Your task to perform on an android device: turn on improve location accuracy Image 0: 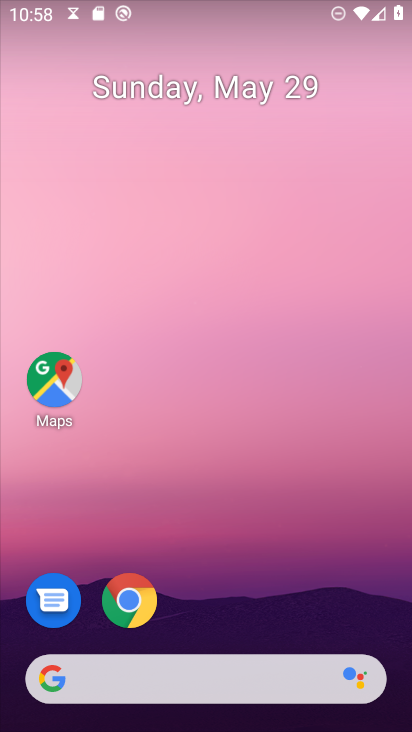
Step 0: drag from (237, 728) to (233, 181)
Your task to perform on an android device: turn on improve location accuracy Image 1: 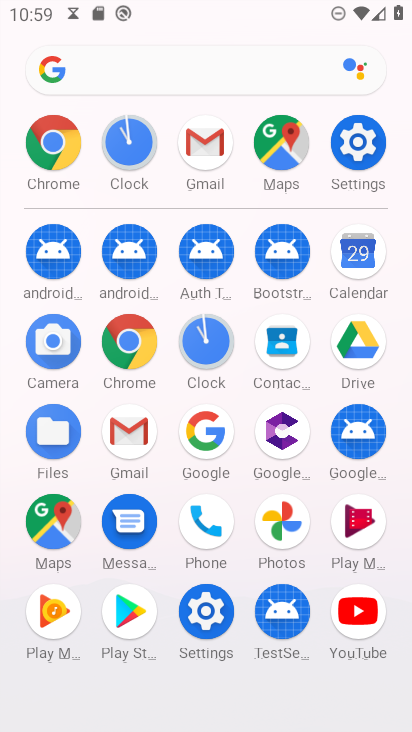
Step 1: click (363, 219)
Your task to perform on an android device: turn on improve location accuracy Image 2: 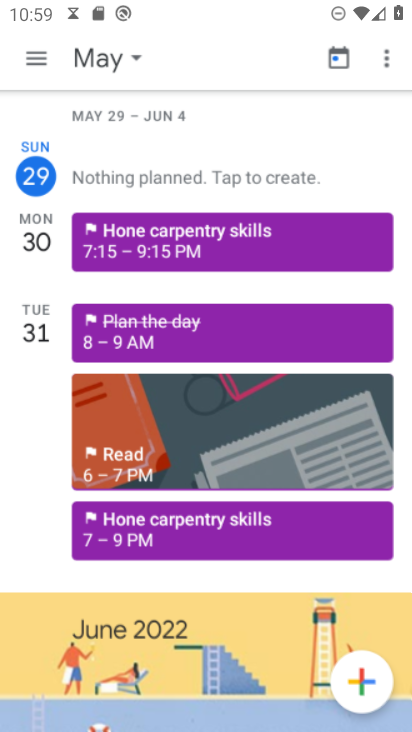
Step 2: click (358, 140)
Your task to perform on an android device: turn on improve location accuracy Image 3: 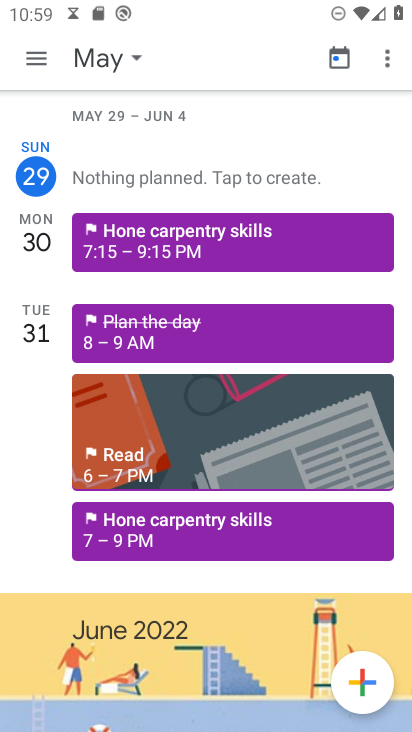
Step 3: press back button
Your task to perform on an android device: turn on improve location accuracy Image 4: 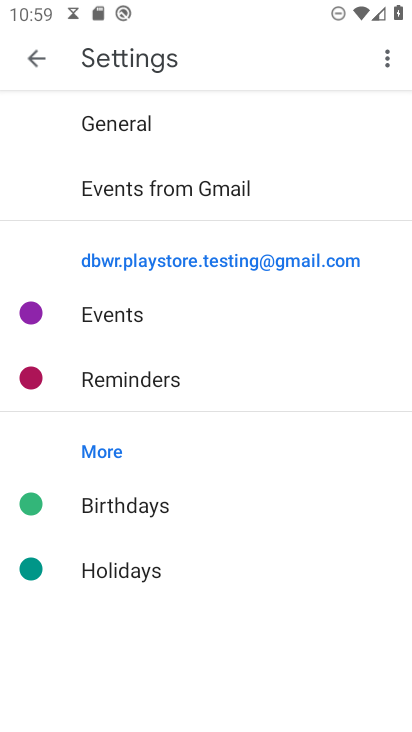
Step 4: press home button
Your task to perform on an android device: turn on improve location accuracy Image 5: 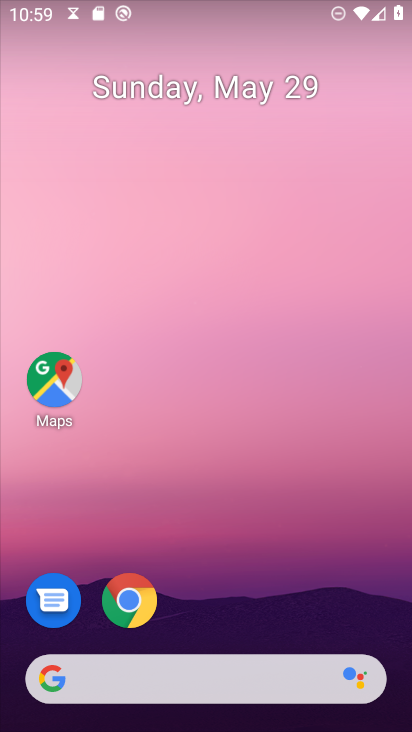
Step 5: drag from (204, 724) to (203, 277)
Your task to perform on an android device: turn on improve location accuracy Image 6: 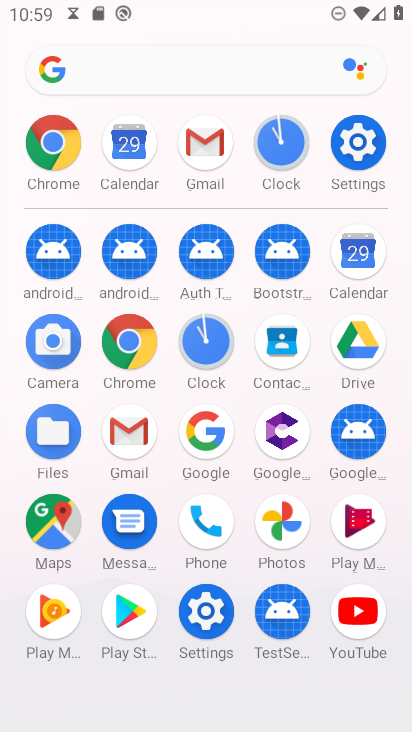
Step 6: click (361, 146)
Your task to perform on an android device: turn on improve location accuracy Image 7: 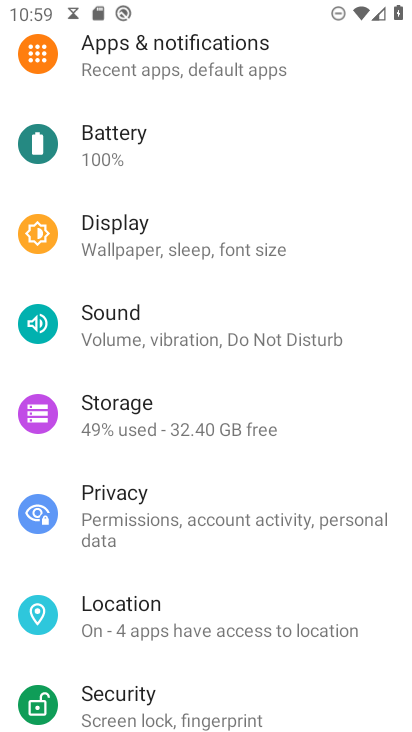
Step 7: click (102, 621)
Your task to perform on an android device: turn on improve location accuracy Image 8: 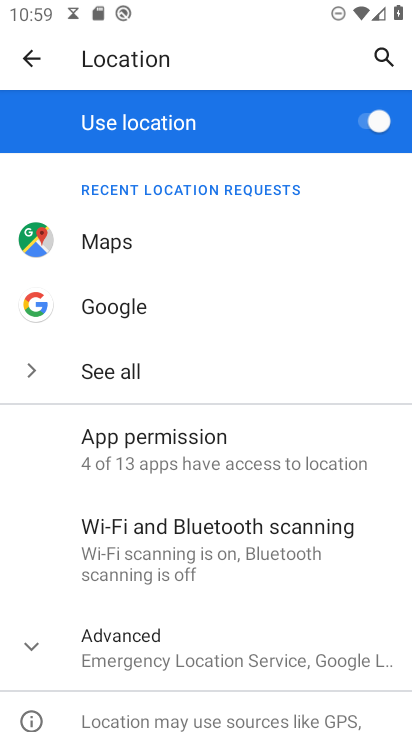
Step 8: click (134, 651)
Your task to perform on an android device: turn on improve location accuracy Image 9: 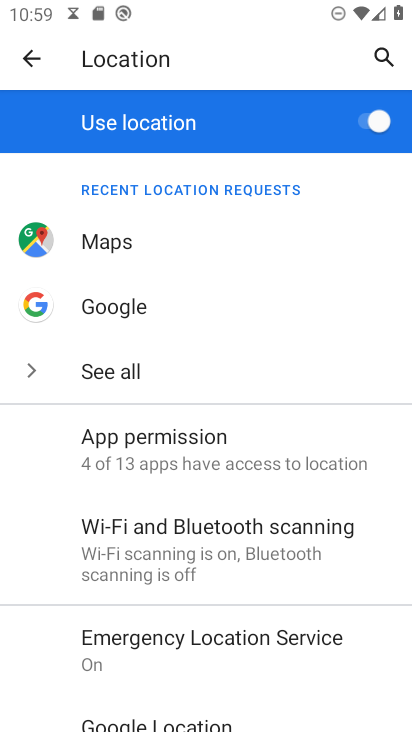
Step 9: drag from (186, 697) to (184, 540)
Your task to perform on an android device: turn on improve location accuracy Image 10: 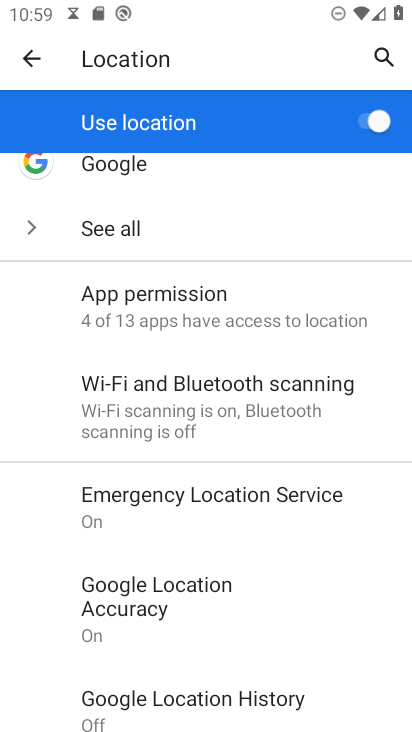
Step 10: drag from (200, 718) to (197, 346)
Your task to perform on an android device: turn on improve location accuracy Image 11: 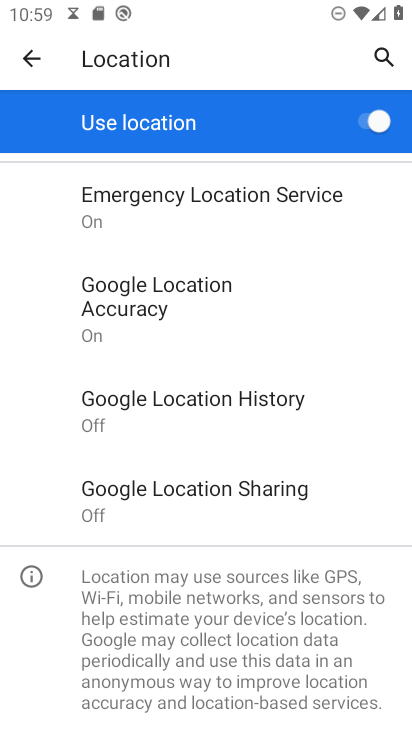
Step 11: drag from (255, 285) to (275, 589)
Your task to perform on an android device: turn on improve location accuracy Image 12: 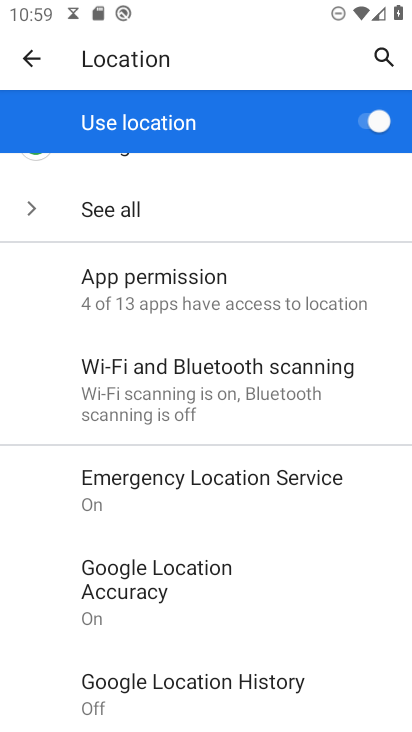
Step 12: drag from (214, 274) to (236, 233)
Your task to perform on an android device: turn on improve location accuracy Image 13: 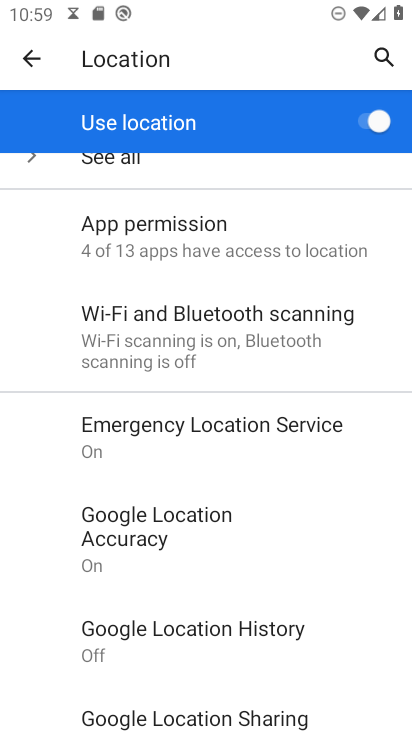
Step 13: click (120, 527)
Your task to perform on an android device: turn on improve location accuracy Image 14: 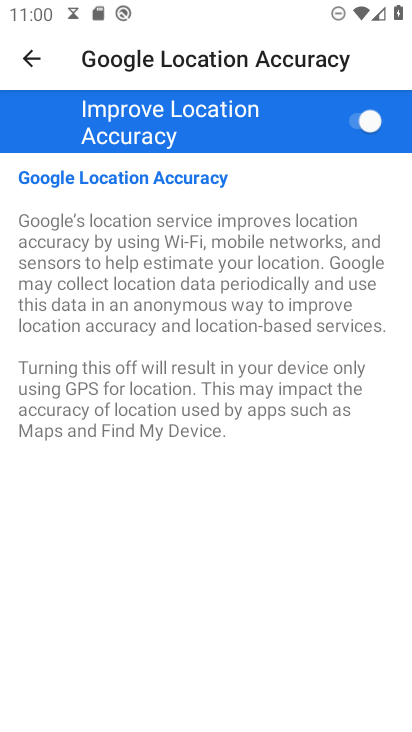
Step 14: task complete